Your task to perform on an android device: set the timer Image 0: 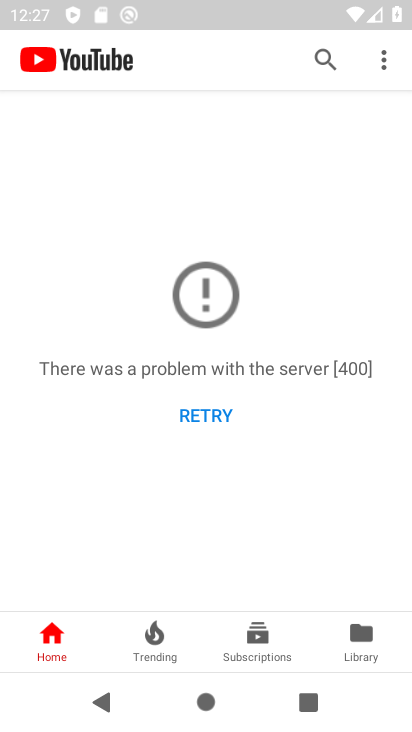
Step 0: press back button
Your task to perform on an android device: set the timer Image 1: 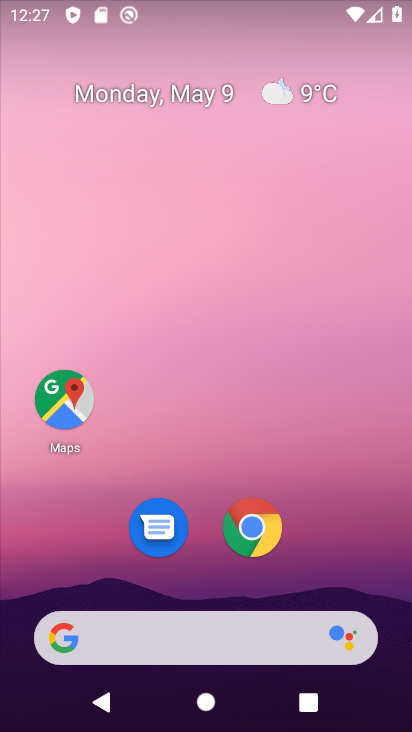
Step 1: drag from (173, 536) to (252, 47)
Your task to perform on an android device: set the timer Image 2: 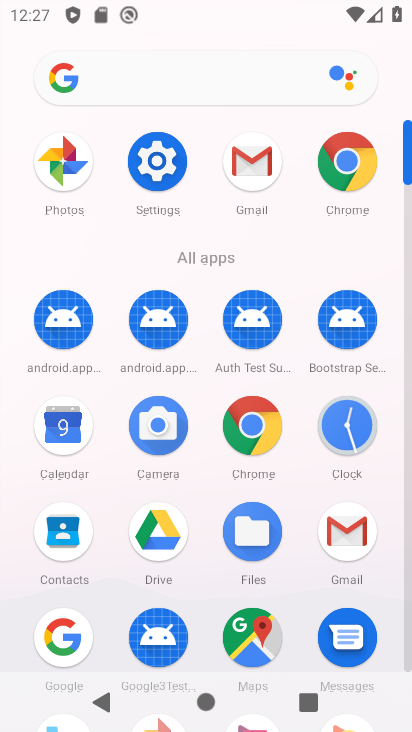
Step 2: click (344, 421)
Your task to perform on an android device: set the timer Image 3: 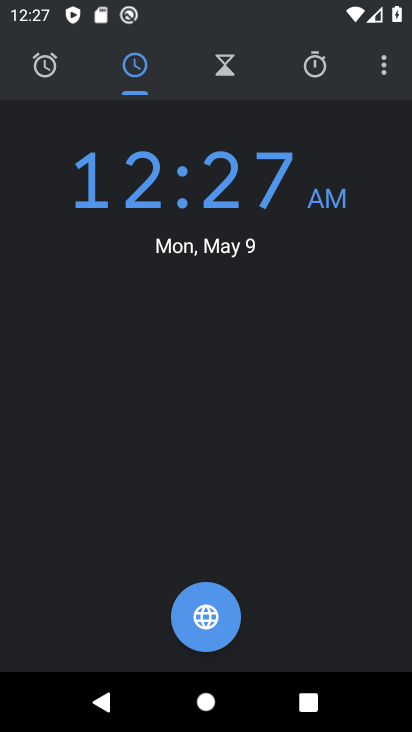
Step 3: click (312, 65)
Your task to perform on an android device: set the timer Image 4: 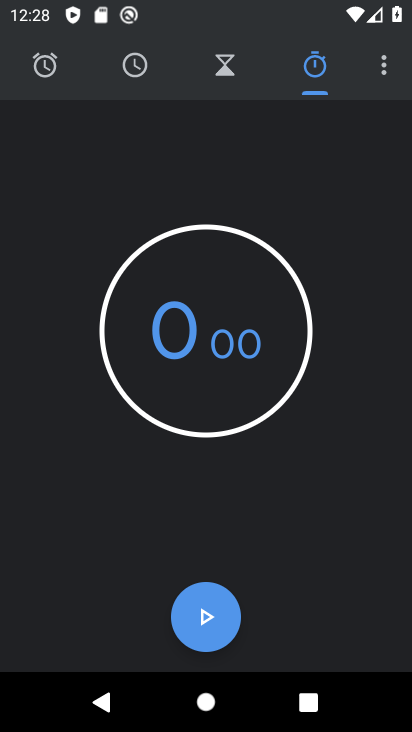
Step 4: click (176, 342)
Your task to perform on an android device: set the timer Image 5: 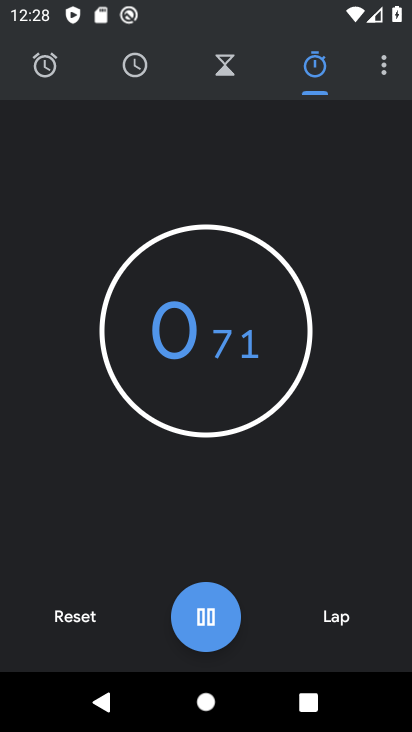
Step 5: click (176, 342)
Your task to perform on an android device: set the timer Image 6: 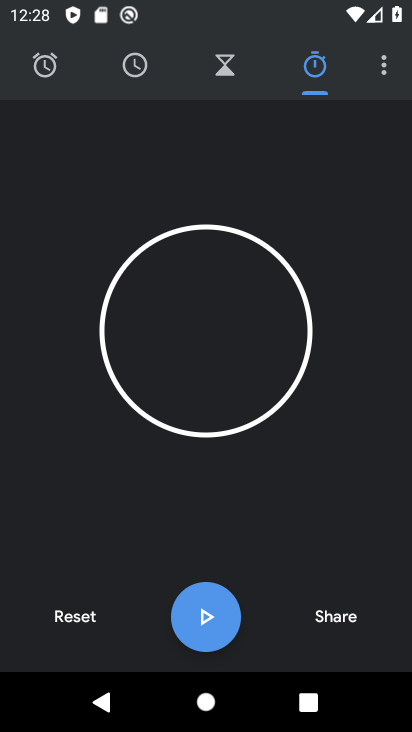
Step 6: click (232, 88)
Your task to perform on an android device: set the timer Image 7: 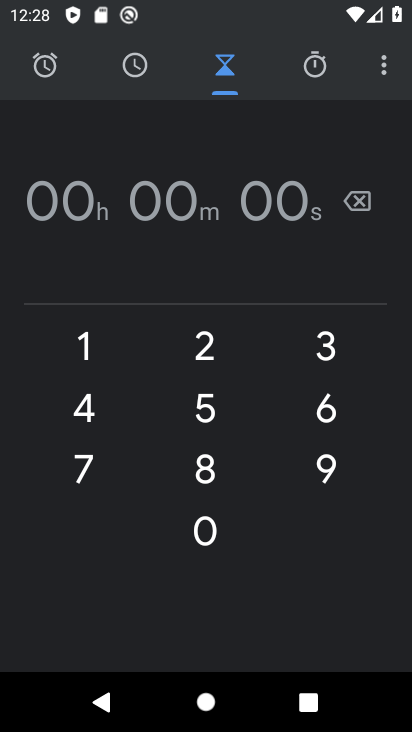
Step 7: click (191, 401)
Your task to perform on an android device: set the timer Image 8: 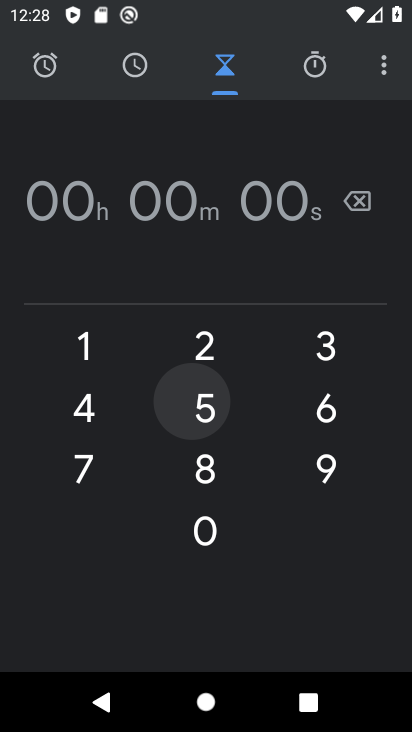
Step 8: click (206, 357)
Your task to perform on an android device: set the timer Image 9: 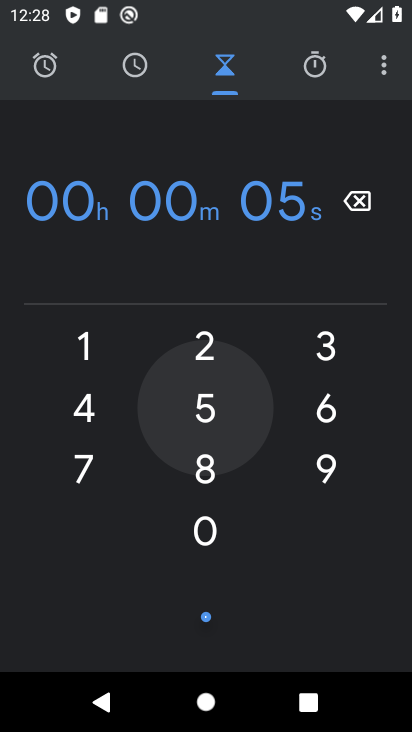
Step 9: click (224, 421)
Your task to perform on an android device: set the timer Image 10: 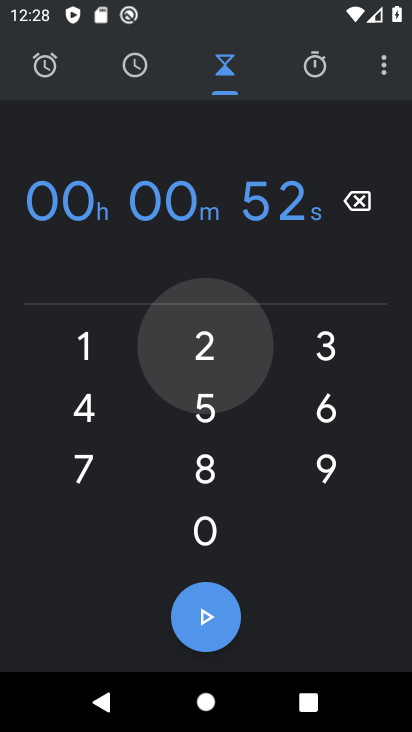
Step 10: click (326, 368)
Your task to perform on an android device: set the timer Image 11: 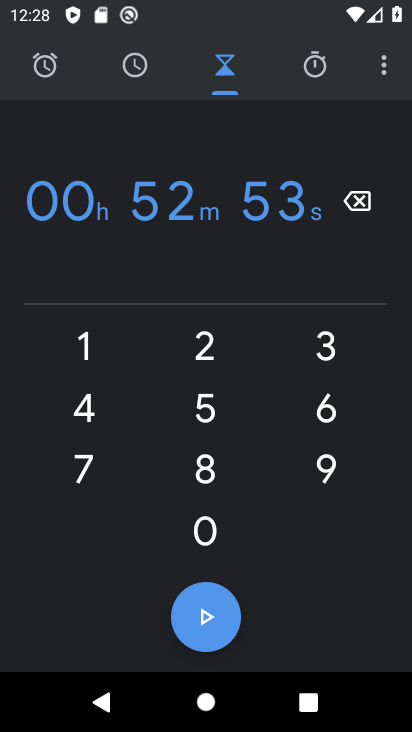
Step 11: task complete